Your task to perform on an android device: Open Amazon Image 0: 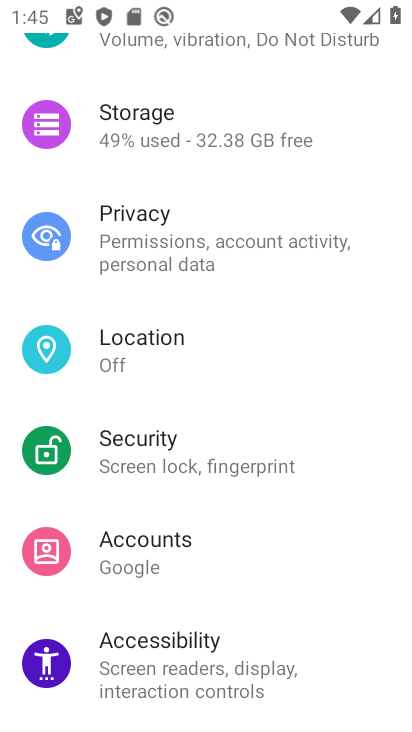
Step 0: press home button
Your task to perform on an android device: Open Amazon Image 1: 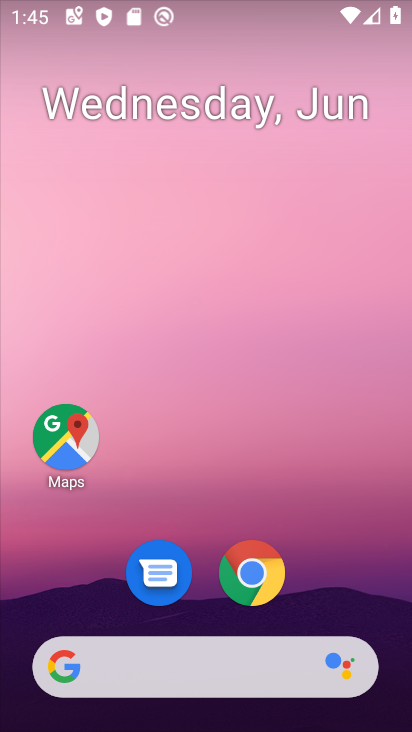
Step 1: drag from (366, 566) to (322, 133)
Your task to perform on an android device: Open Amazon Image 2: 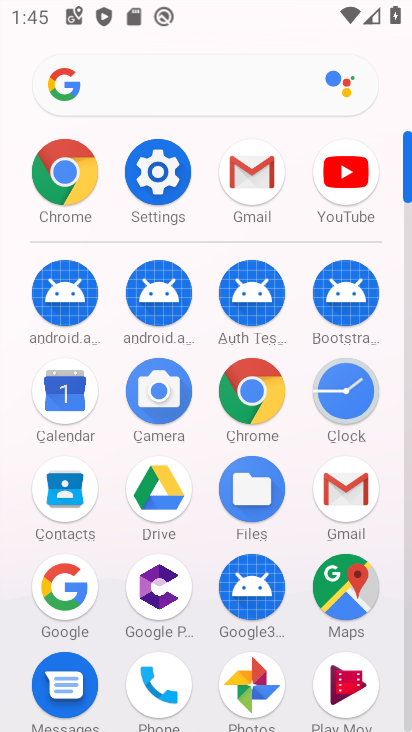
Step 2: click (242, 411)
Your task to perform on an android device: Open Amazon Image 3: 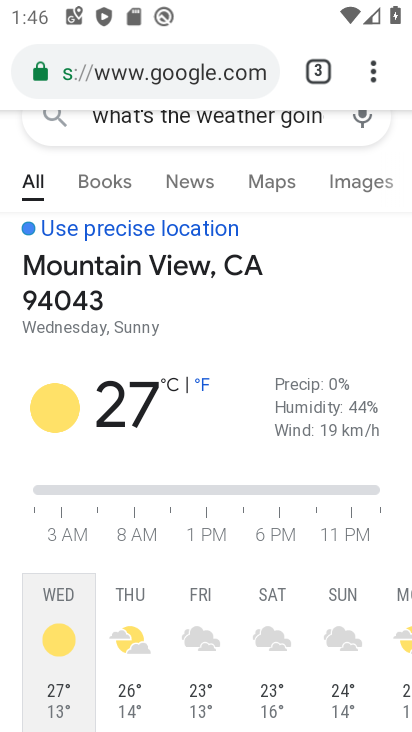
Step 3: click (309, 72)
Your task to perform on an android device: Open Amazon Image 4: 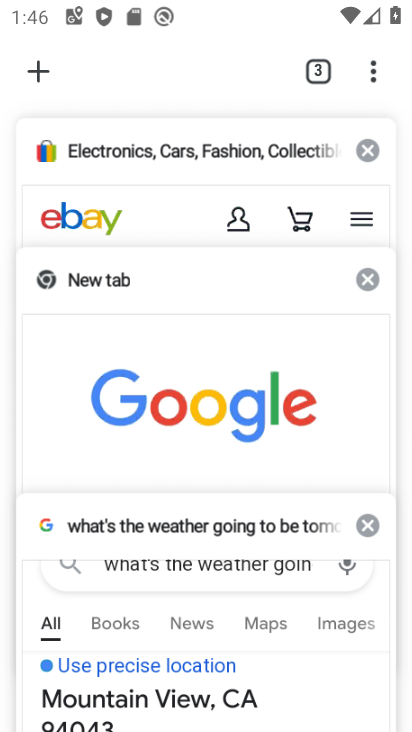
Step 4: click (43, 83)
Your task to perform on an android device: Open Amazon Image 5: 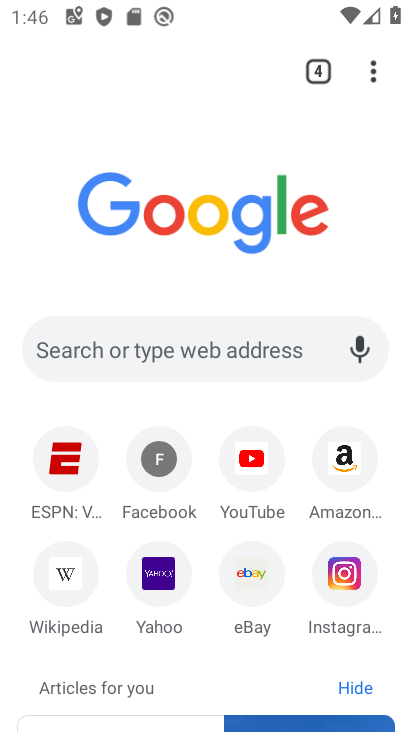
Step 5: click (370, 473)
Your task to perform on an android device: Open Amazon Image 6: 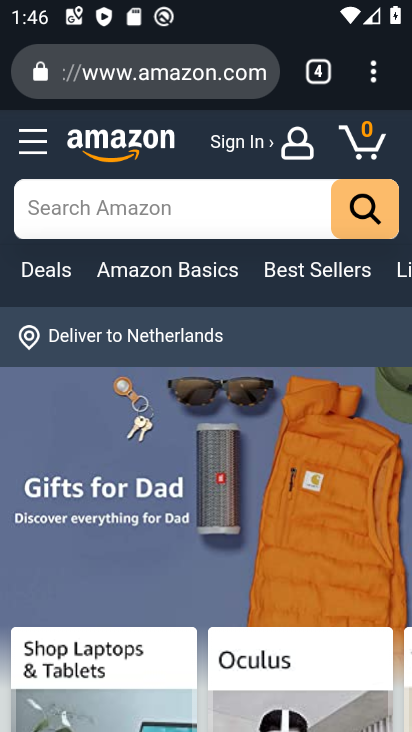
Step 6: task complete